Your task to perform on an android device: Open accessibility settings Image 0: 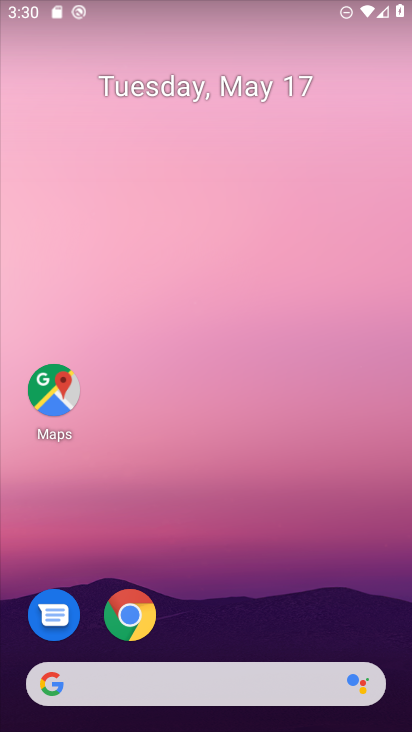
Step 0: drag from (190, 730) to (192, 76)
Your task to perform on an android device: Open accessibility settings Image 1: 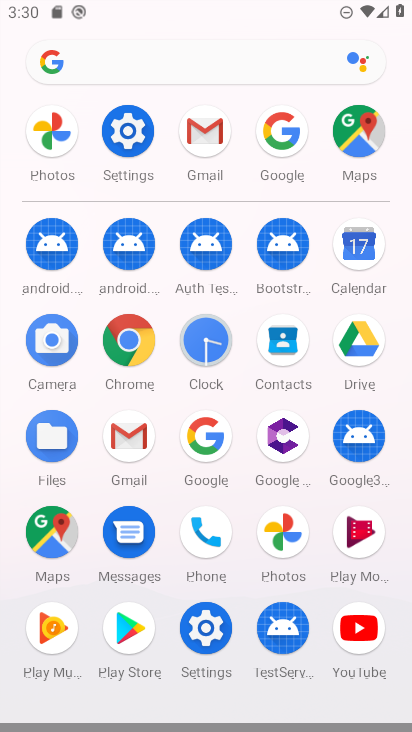
Step 1: click (132, 130)
Your task to perform on an android device: Open accessibility settings Image 2: 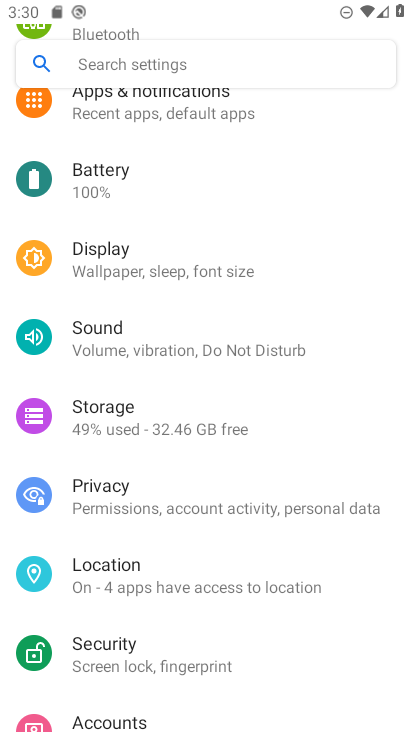
Step 2: drag from (106, 692) to (141, 238)
Your task to perform on an android device: Open accessibility settings Image 3: 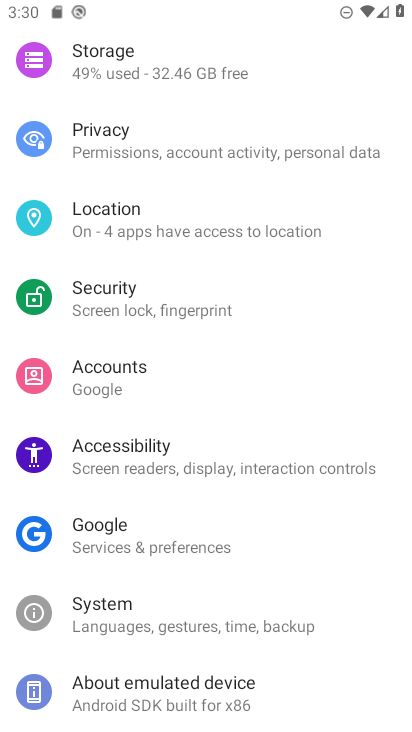
Step 3: click (124, 451)
Your task to perform on an android device: Open accessibility settings Image 4: 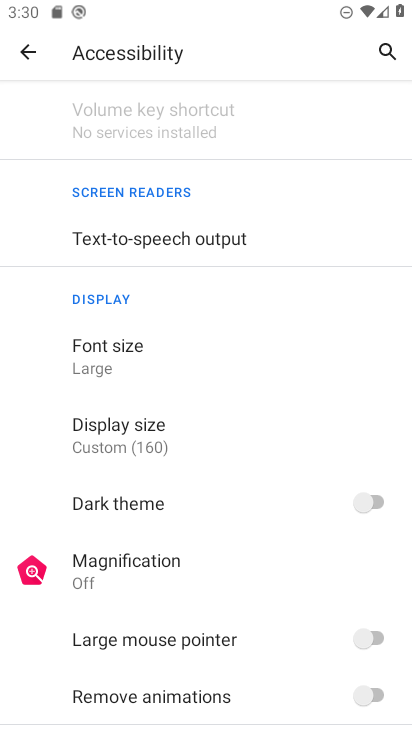
Step 4: task complete